Your task to perform on an android device: Search for sushi restaurants on Maps Image 0: 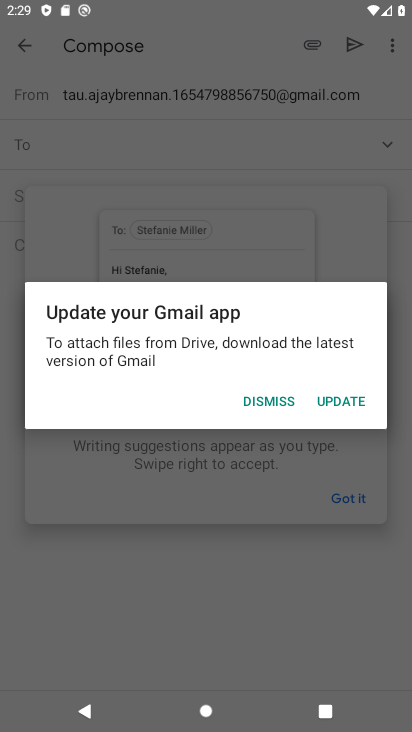
Step 0: press home button
Your task to perform on an android device: Search for sushi restaurants on Maps Image 1: 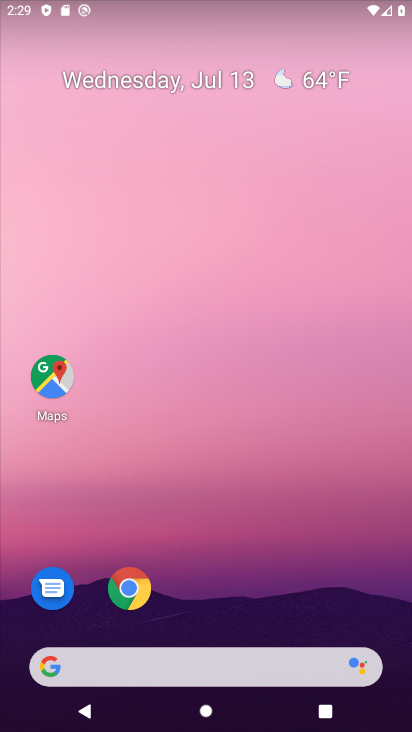
Step 1: click (42, 383)
Your task to perform on an android device: Search for sushi restaurants on Maps Image 2: 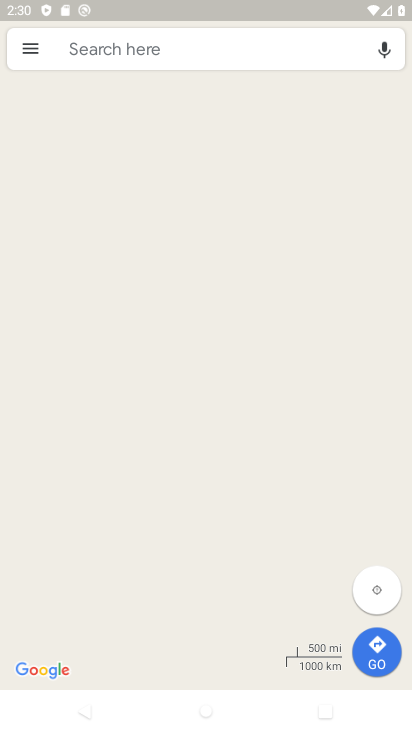
Step 2: click (151, 40)
Your task to perform on an android device: Search for sushi restaurants on Maps Image 3: 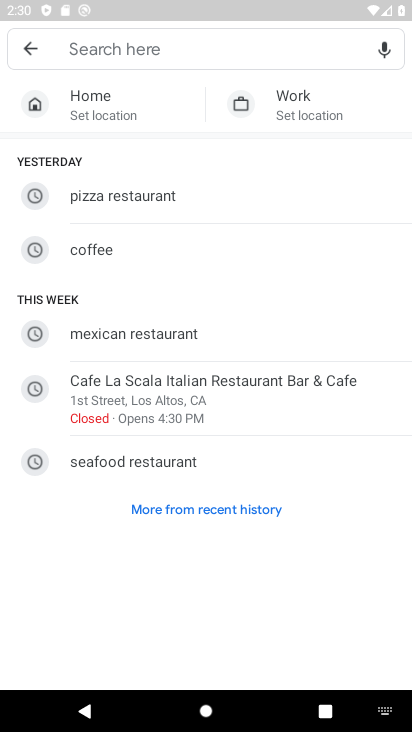
Step 3: type "sushi restaurants"
Your task to perform on an android device: Search for sushi restaurants on Maps Image 4: 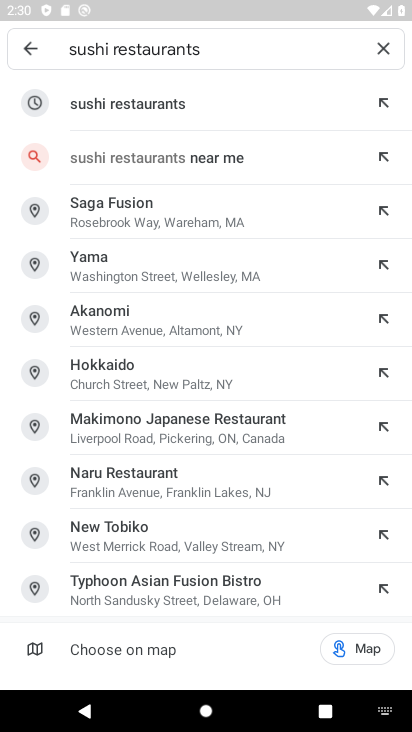
Step 4: click (147, 97)
Your task to perform on an android device: Search for sushi restaurants on Maps Image 5: 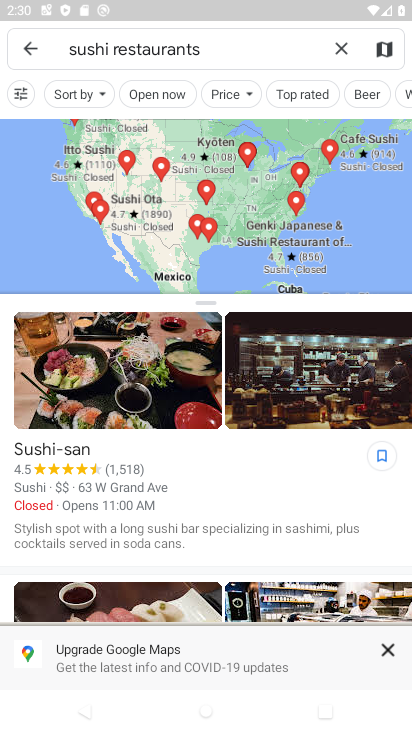
Step 5: task complete